Your task to perform on an android device: delete a single message in the gmail app Image 0: 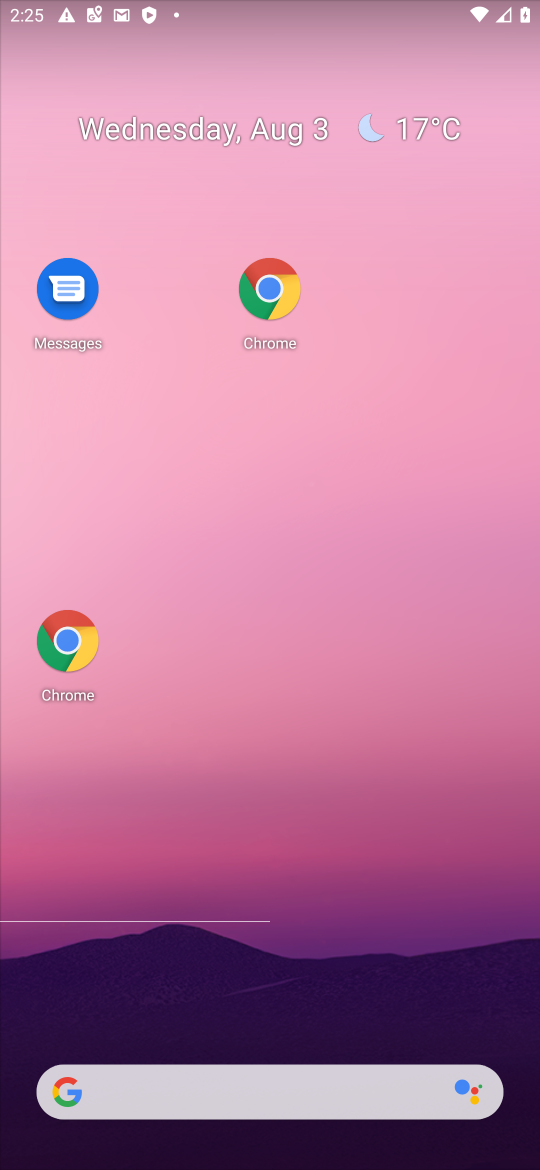
Step 0: drag from (361, 1008) to (438, 31)
Your task to perform on an android device: delete a single message in the gmail app Image 1: 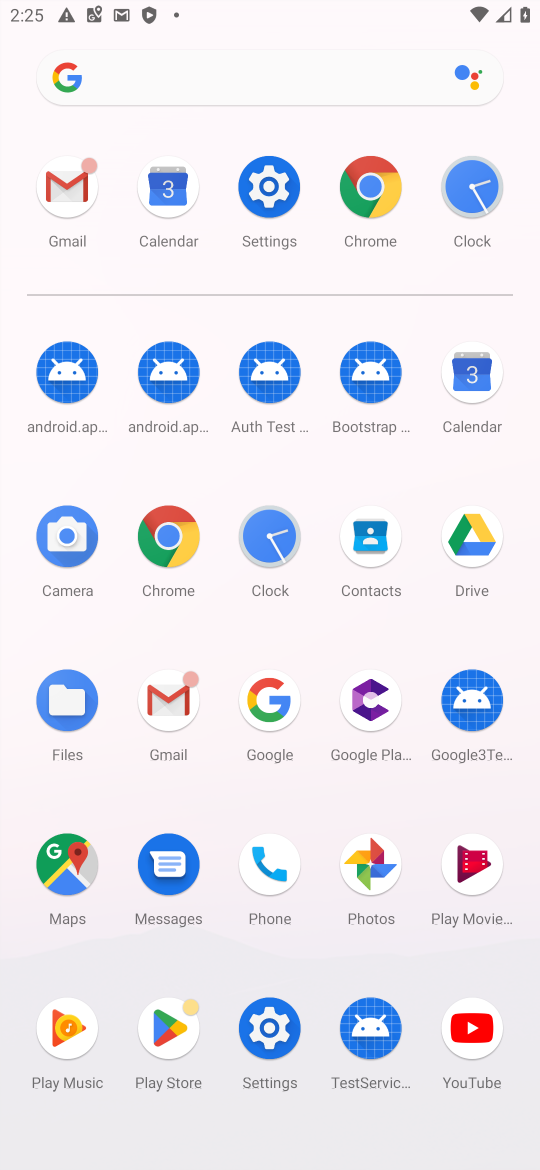
Step 1: click (38, 189)
Your task to perform on an android device: delete a single message in the gmail app Image 2: 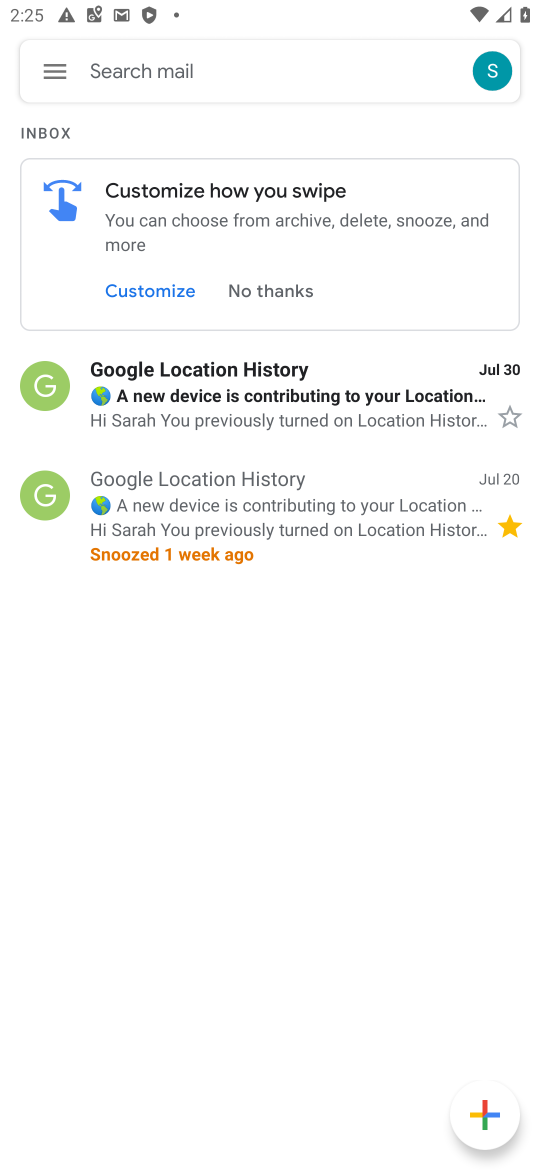
Step 2: click (62, 75)
Your task to perform on an android device: delete a single message in the gmail app Image 3: 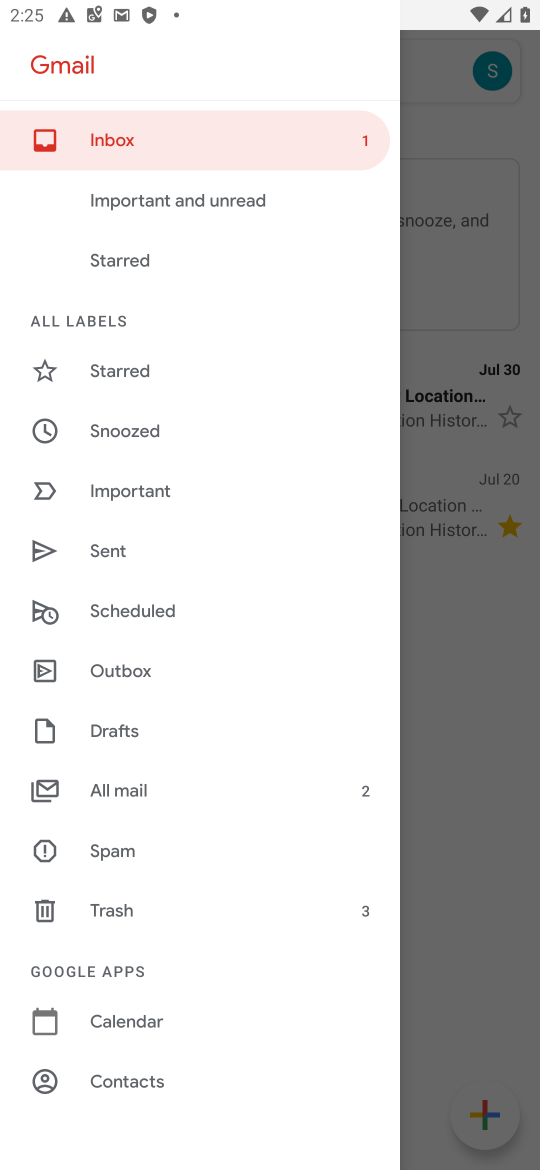
Step 3: click (159, 781)
Your task to perform on an android device: delete a single message in the gmail app Image 4: 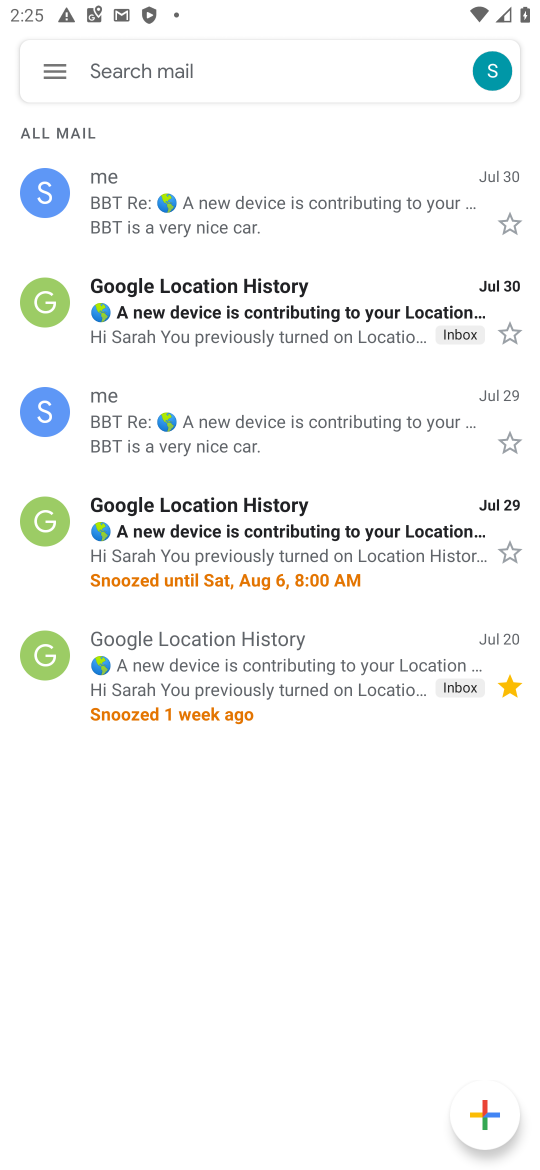
Step 4: click (63, 305)
Your task to perform on an android device: delete a single message in the gmail app Image 5: 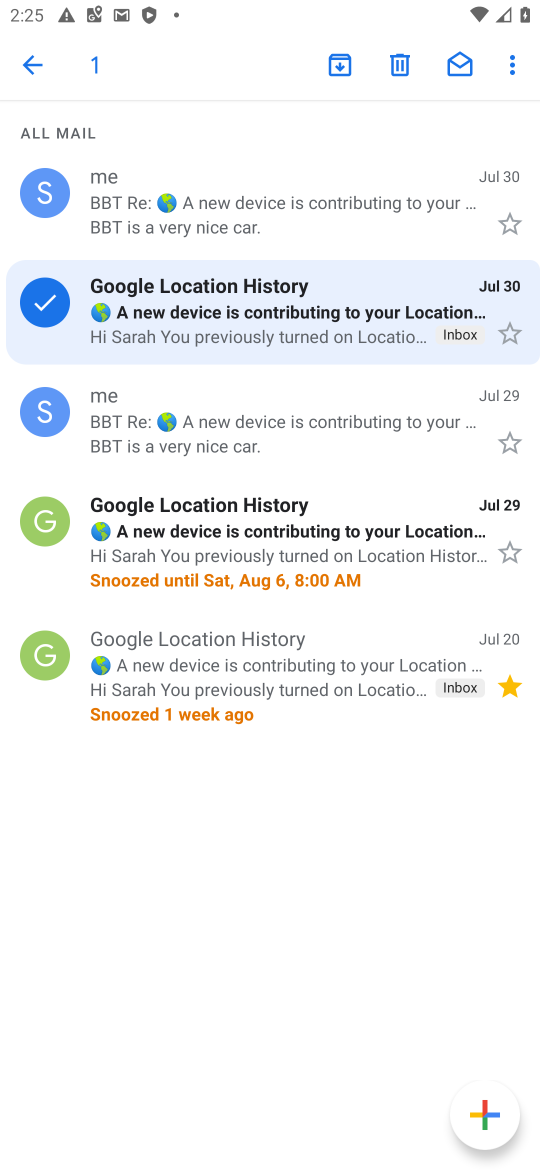
Step 5: click (391, 70)
Your task to perform on an android device: delete a single message in the gmail app Image 6: 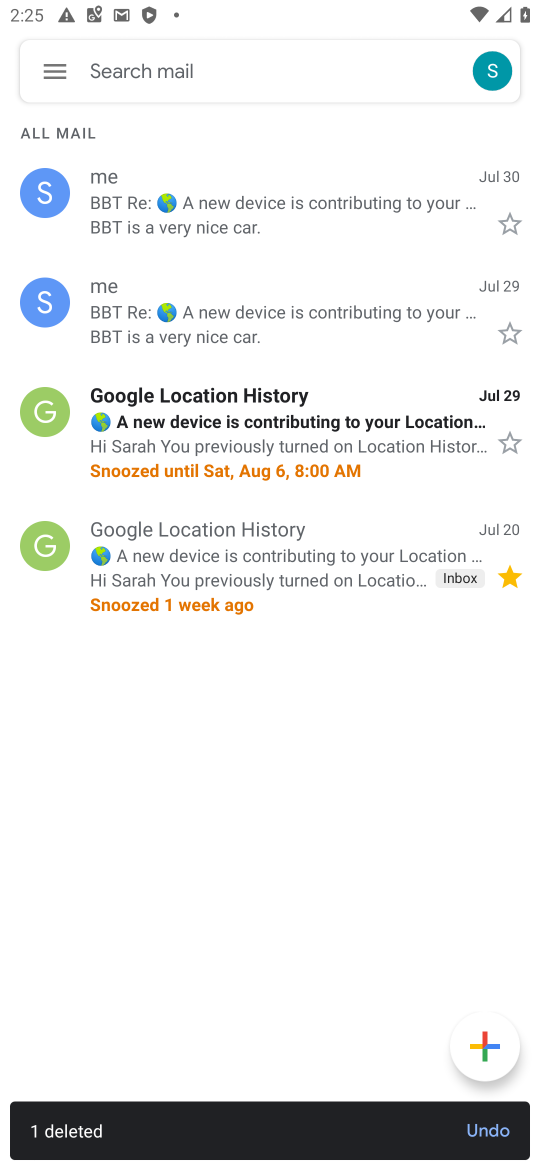
Step 6: task complete